Your task to perform on an android device: Open Google Image 0: 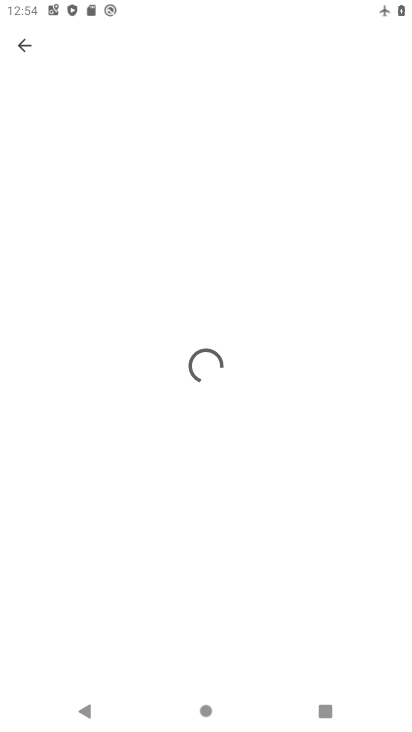
Step 0: drag from (227, 703) to (232, 413)
Your task to perform on an android device: Open Google Image 1: 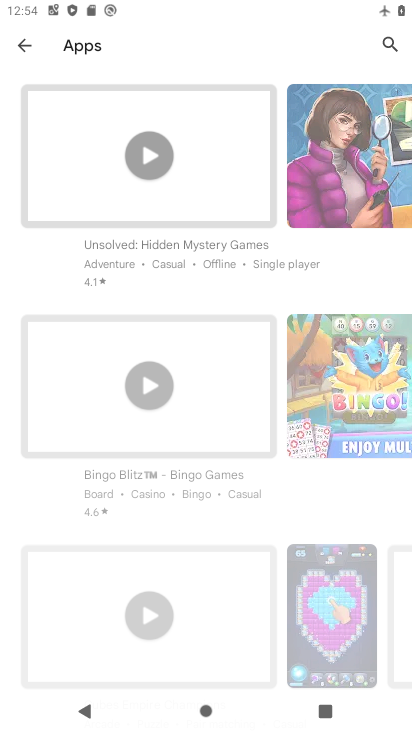
Step 1: press home button
Your task to perform on an android device: Open Google Image 2: 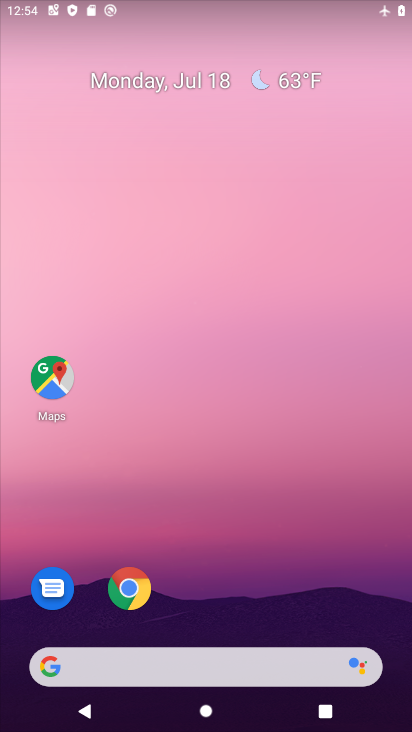
Step 2: drag from (250, 710) to (239, 75)
Your task to perform on an android device: Open Google Image 3: 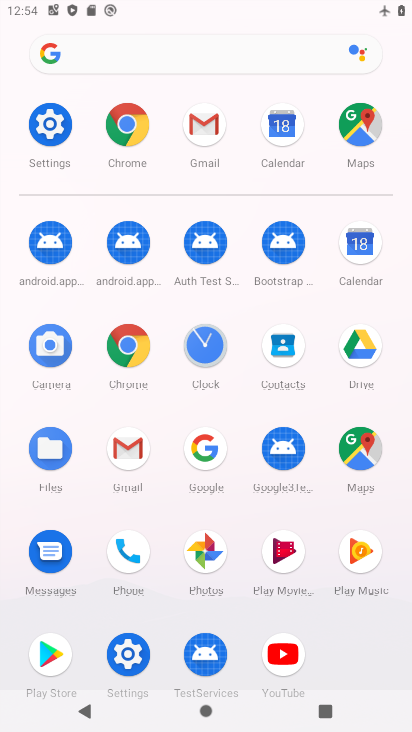
Step 3: click (206, 444)
Your task to perform on an android device: Open Google Image 4: 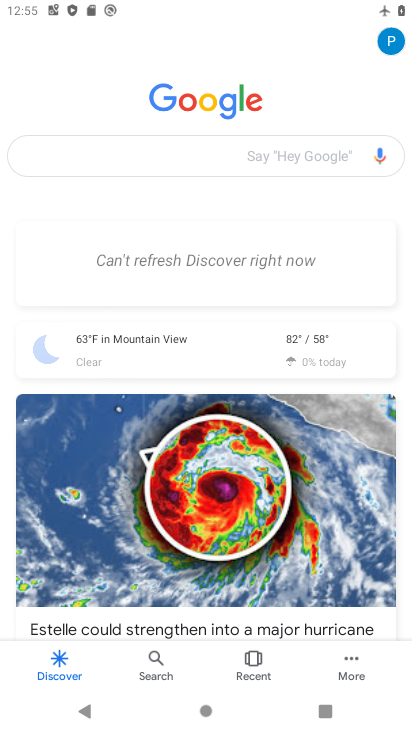
Step 4: task complete